Your task to perform on an android device: turn off location history Image 0: 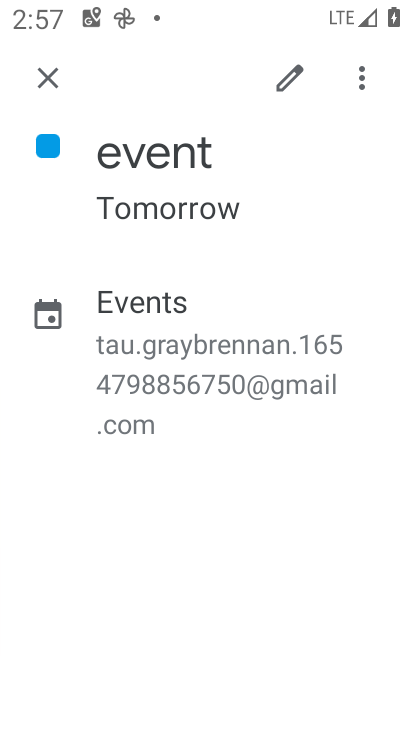
Step 0: press home button
Your task to perform on an android device: turn off location history Image 1: 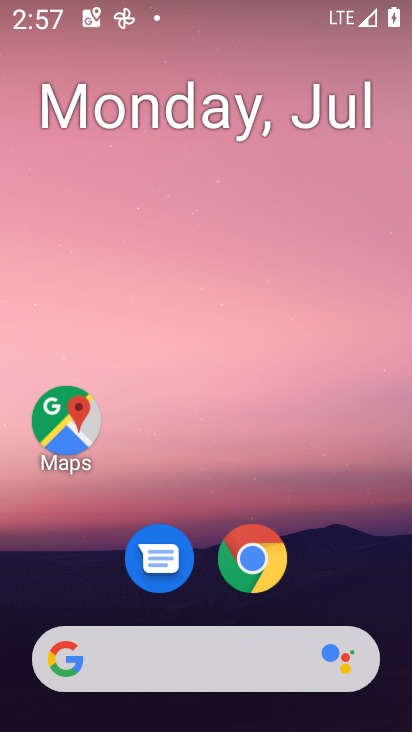
Step 1: drag from (372, 537) to (335, 79)
Your task to perform on an android device: turn off location history Image 2: 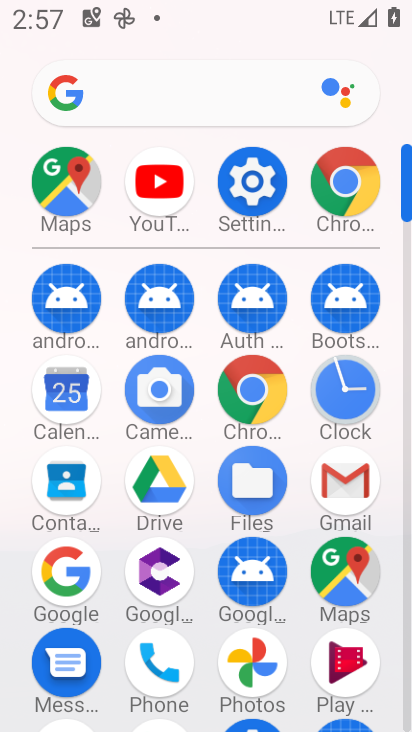
Step 2: click (257, 192)
Your task to perform on an android device: turn off location history Image 3: 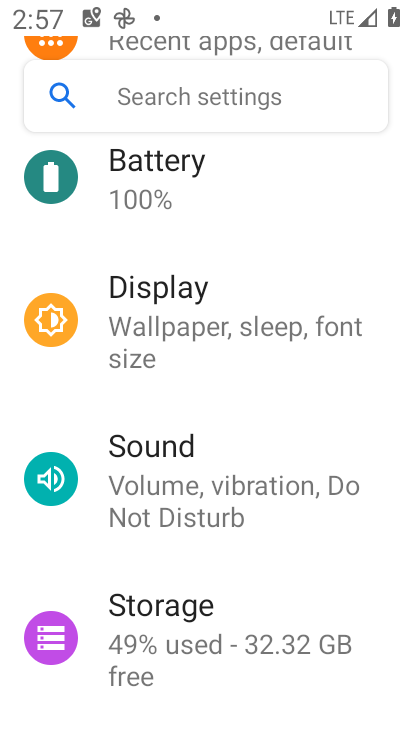
Step 3: drag from (338, 413) to (342, 266)
Your task to perform on an android device: turn off location history Image 4: 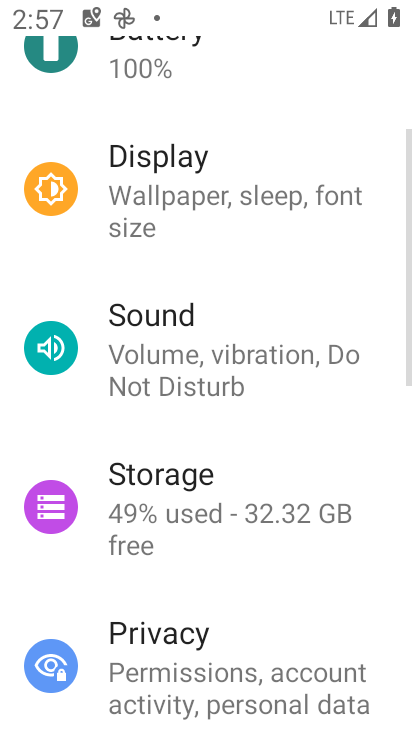
Step 4: drag from (367, 378) to (367, 268)
Your task to perform on an android device: turn off location history Image 5: 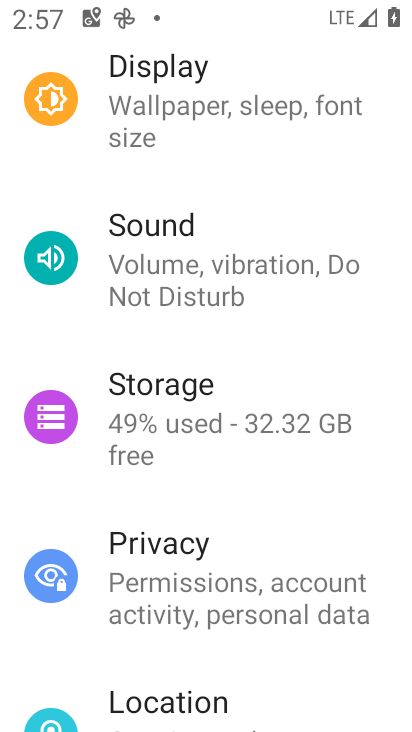
Step 5: drag from (367, 368) to (360, 271)
Your task to perform on an android device: turn off location history Image 6: 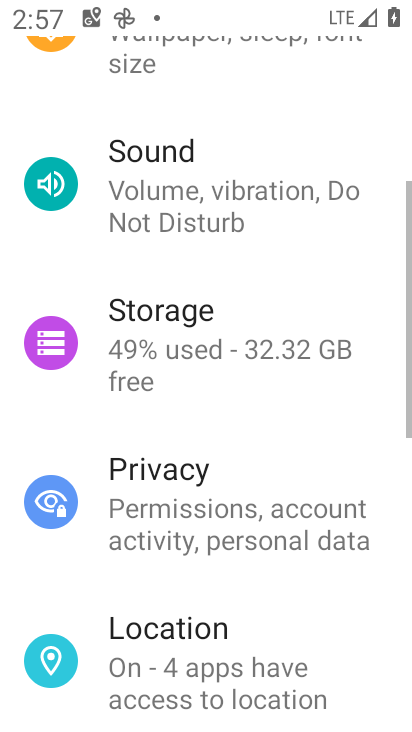
Step 6: drag from (364, 414) to (347, 322)
Your task to perform on an android device: turn off location history Image 7: 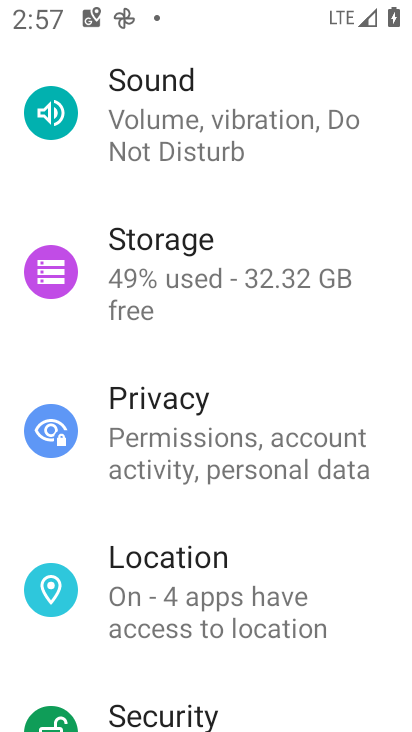
Step 7: drag from (350, 435) to (350, 346)
Your task to perform on an android device: turn off location history Image 8: 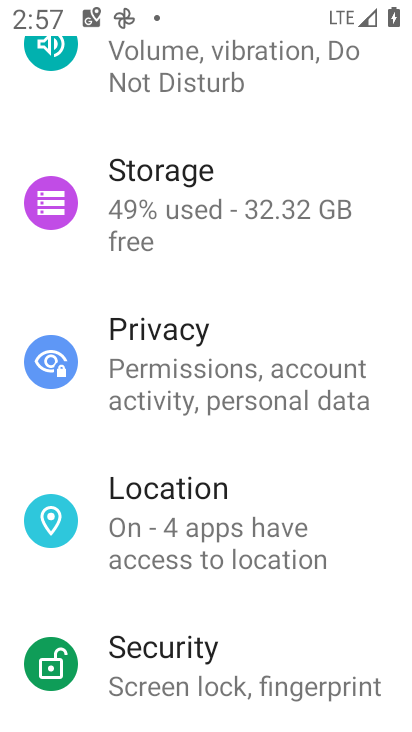
Step 8: drag from (349, 461) to (352, 345)
Your task to perform on an android device: turn off location history Image 9: 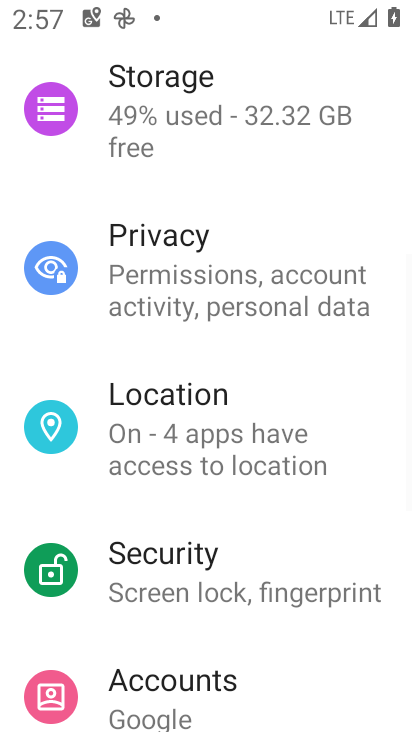
Step 9: drag from (355, 501) to (359, 382)
Your task to perform on an android device: turn off location history Image 10: 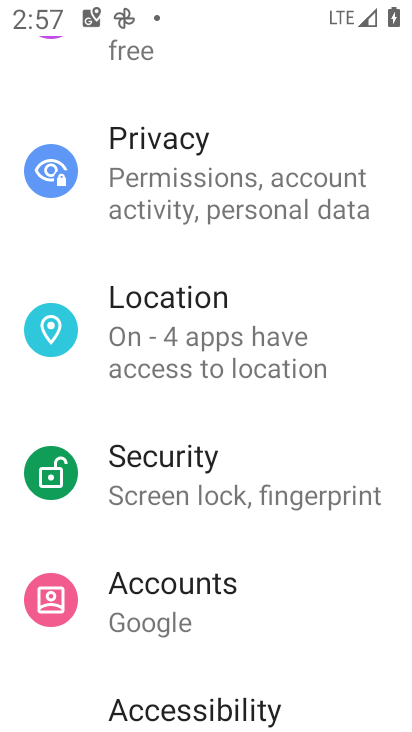
Step 10: click (336, 362)
Your task to perform on an android device: turn off location history Image 11: 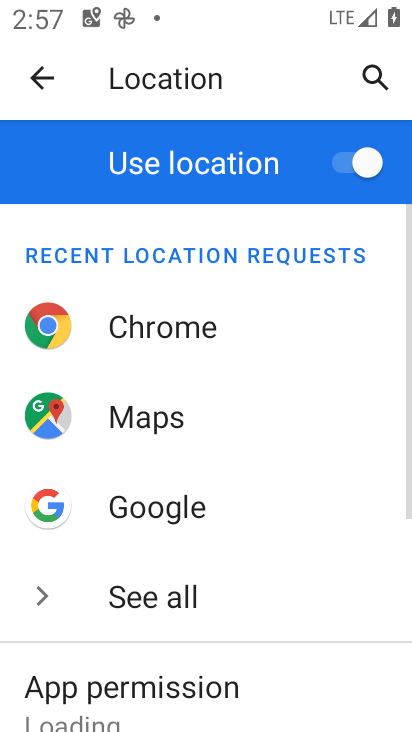
Step 11: drag from (334, 505) to (342, 411)
Your task to perform on an android device: turn off location history Image 12: 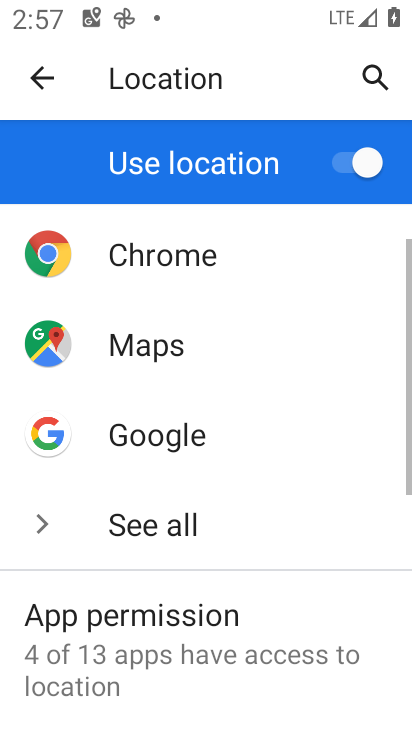
Step 12: drag from (342, 517) to (342, 430)
Your task to perform on an android device: turn off location history Image 13: 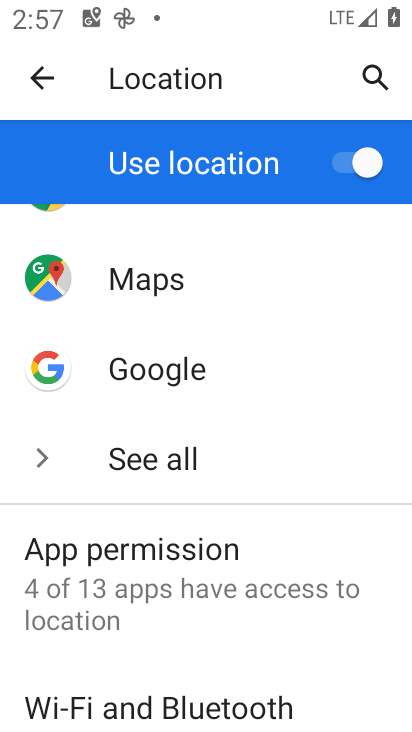
Step 13: drag from (347, 541) to (346, 461)
Your task to perform on an android device: turn off location history Image 14: 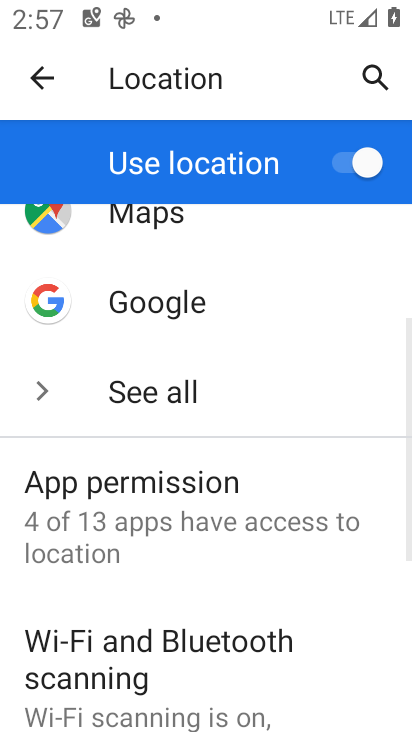
Step 14: drag from (347, 574) to (342, 439)
Your task to perform on an android device: turn off location history Image 15: 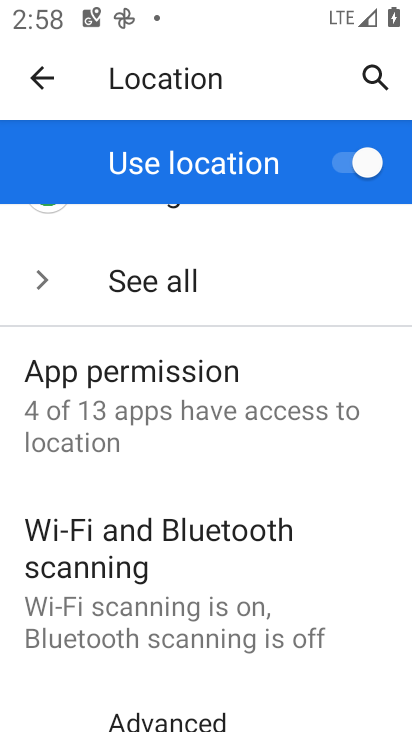
Step 15: drag from (349, 575) to (334, 447)
Your task to perform on an android device: turn off location history Image 16: 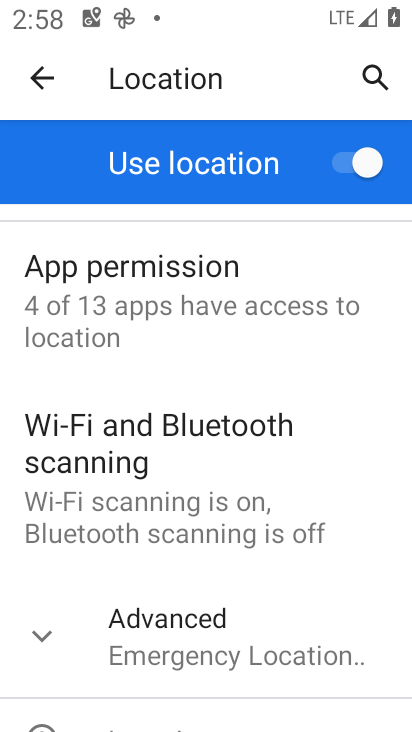
Step 16: click (313, 604)
Your task to perform on an android device: turn off location history Image 17: 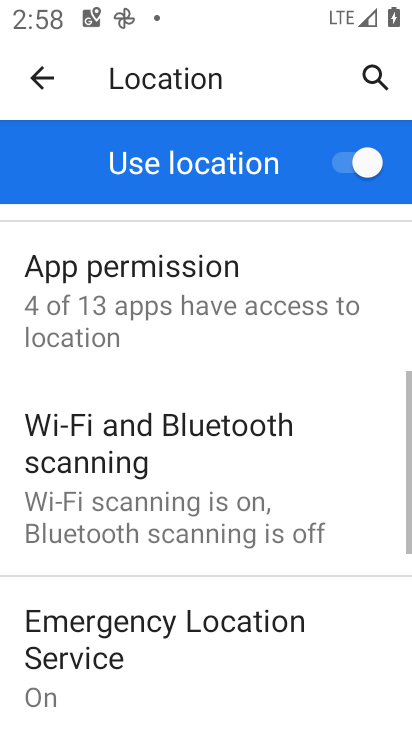
Step 17: task complete